Your task to perform on an android device: toggle javascript in the chrome app Image 0: 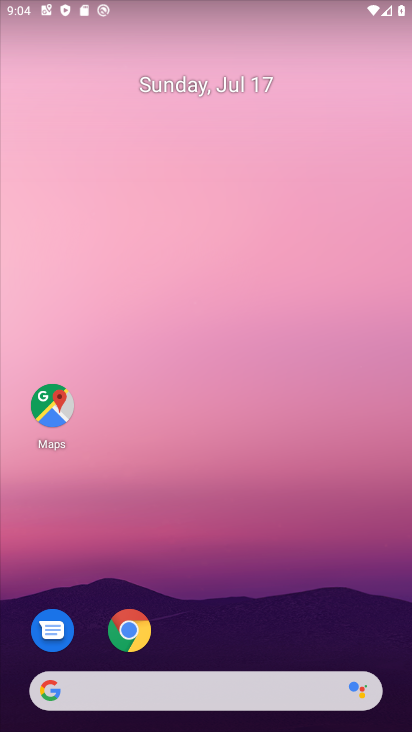
Step 0: drag from (219, 681) to (214, 97)
Your task to perform on an android device: toggle javascript in the chrome app Image 1: 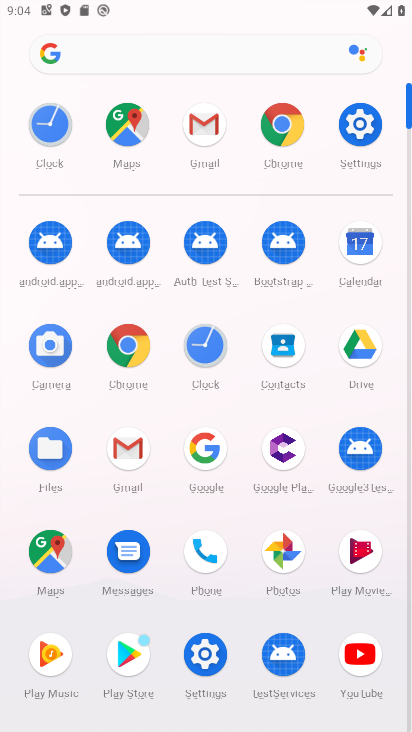
Step 1: click (132, 333)
Your task to perform on an android device: toggle javascript in the chrome app Image 2: 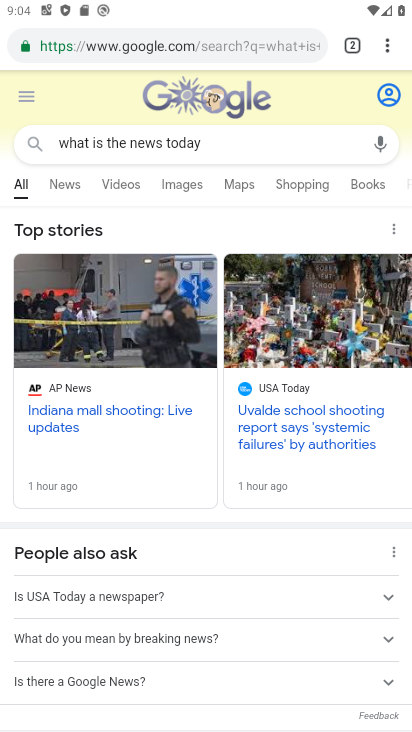
Step 2: click (390, 44)
Your task to perform on an android device: toggle javascript in the chrome app Image 3: 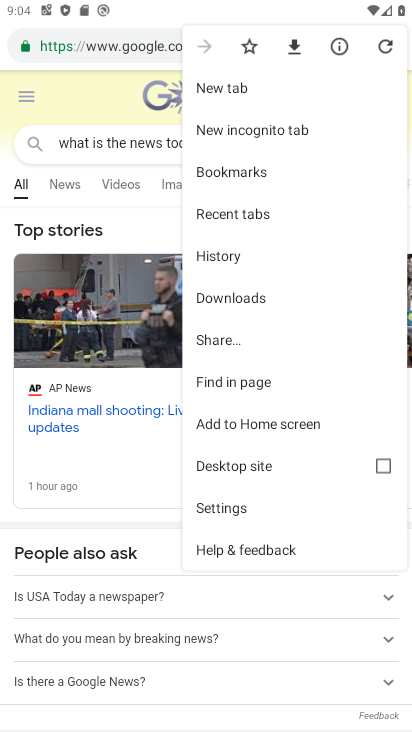
Step 3: click (259, 507)
Your task to perform on an android device: toggle javascript in the chrome app Image 4: 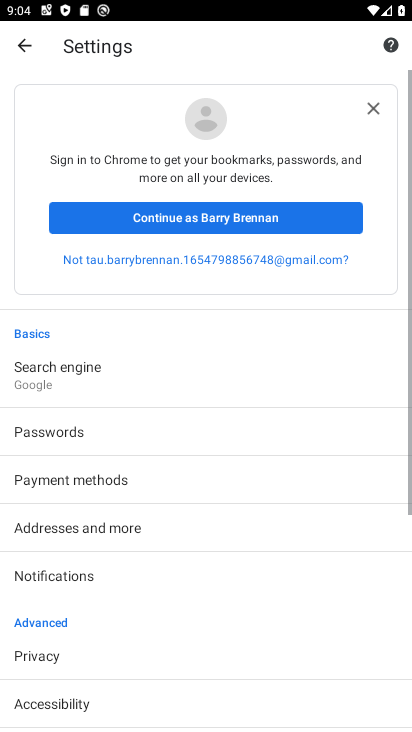
Step 4: drag from (189, 614) to (189, 198)
Your task to perform on an android device: toggle javascript in the chrome app Image 5: 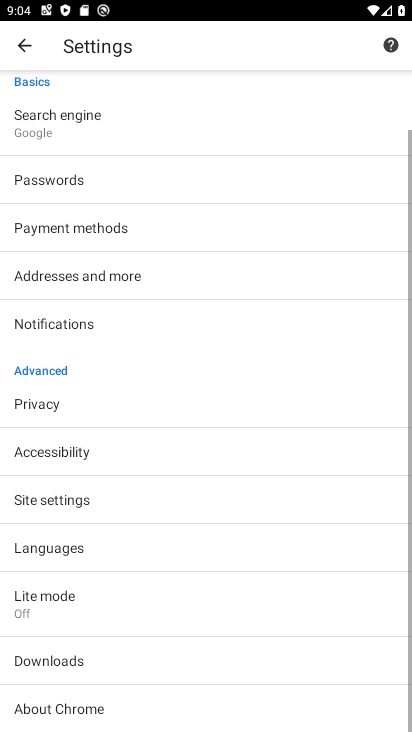
Step 5: click (113, 507)
Your task to perform on an android device: toggle javascript in the chrome app Image 6: 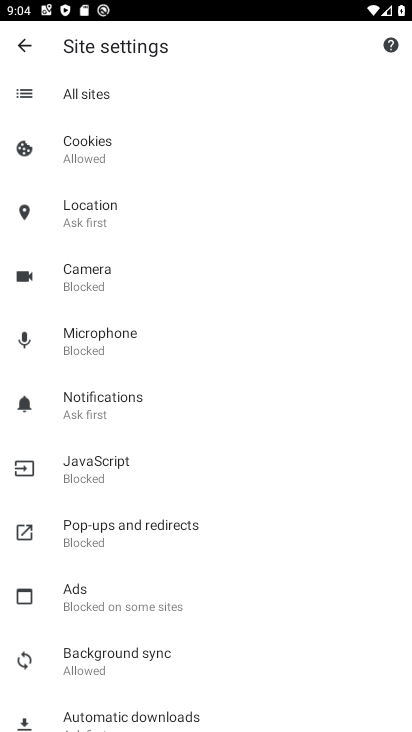
Step 6: click (114, 467)
Your task to perform on an android device: toggle javascript in the chrome app Image 7: 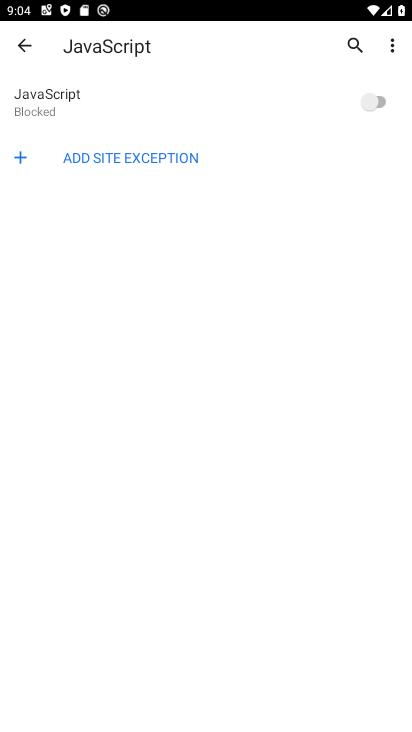
Step 7: click (386, 97)
Your task to perform on an android device: toggle javascript in the chrome app Image 8: 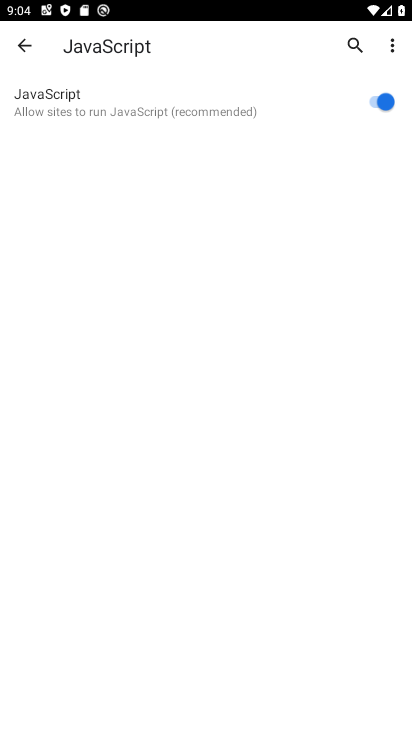
Step 8: task complete